Your task to perform on an android device: turn on the 12-hour format for clock Image 0: 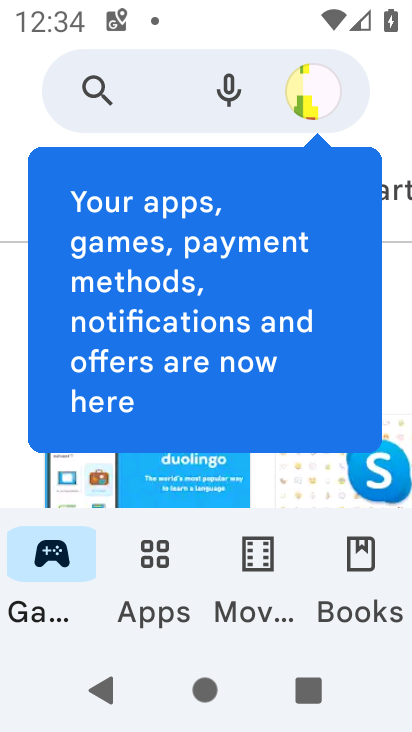
Step 0: press back button
Your task to perform on an android device: turn on the 12-hour format for clock Image 1: 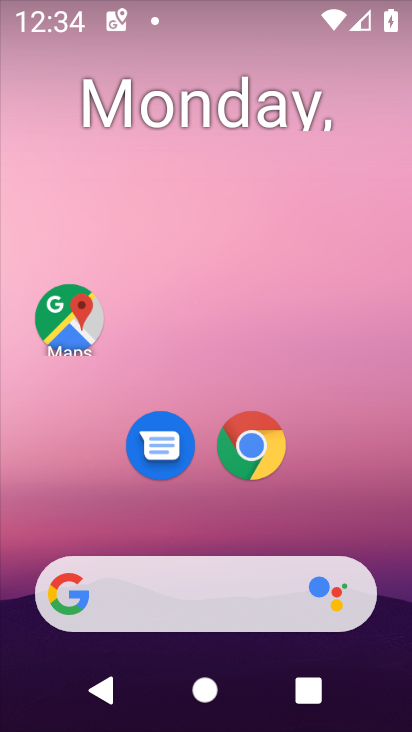
Step 1: drag from (302, 517) to (194, 42)
Your task to perform on an android device: turn on the 12-hour format for clock Image 2: 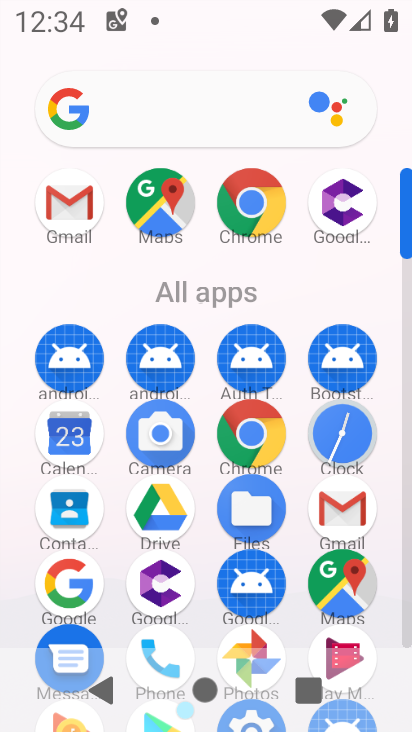
Step 2: click (343, 433)
Your task to perform on an android device: turn on the 12-hour format for clock Image 3: 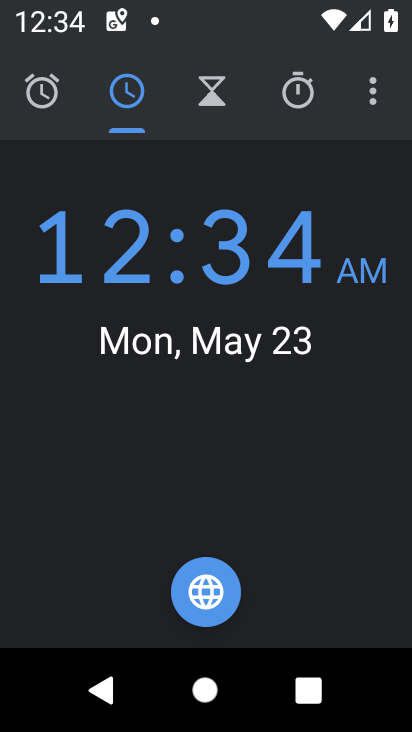
Step 3: click (374, 90)
Your task to perform on an android device: turn on the 12-hour format for clock Image 4: 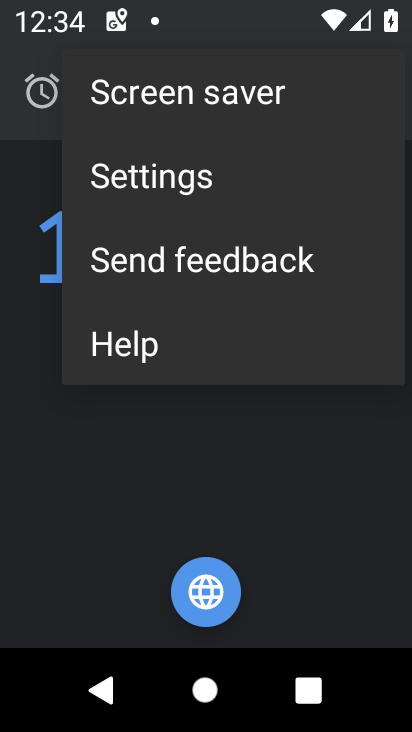
Step 4: click (166, 179)
Your task to perform on an android device: turn on the 12-hour format for clock Image 5: 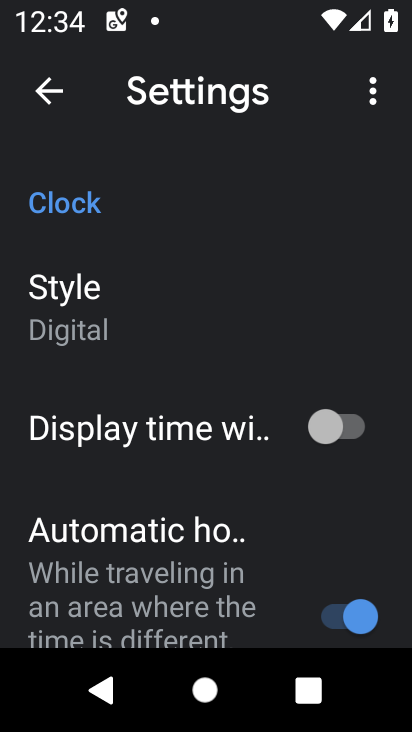
Step 5: drag from (127, 477) to (165, 351)
Your task to perform on an android device: turn on the 12-hour format for clock Image 6: 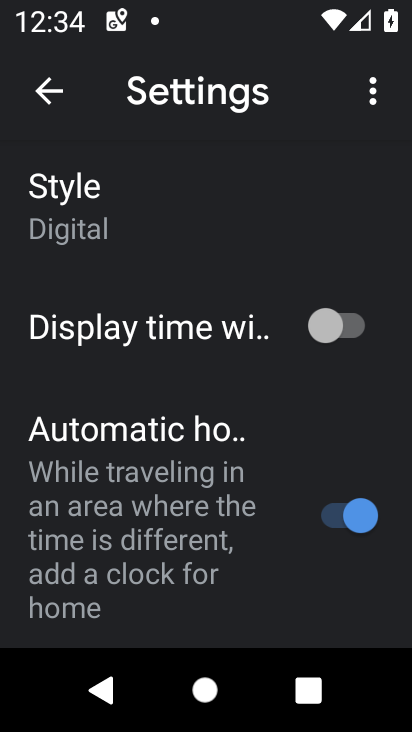
Step 6: drag from (128, 511) to (213, 362)
Your task to perform on an android device: turn on the 12-hour format for clock Image 7: 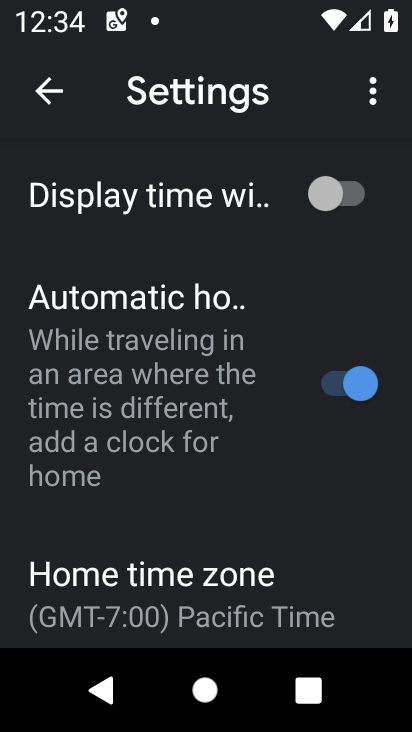
Step 7: drag from (171, 528) to (234, 383)
Your task to perform on an android device: turn on the 12-hour format for clock Image 8: 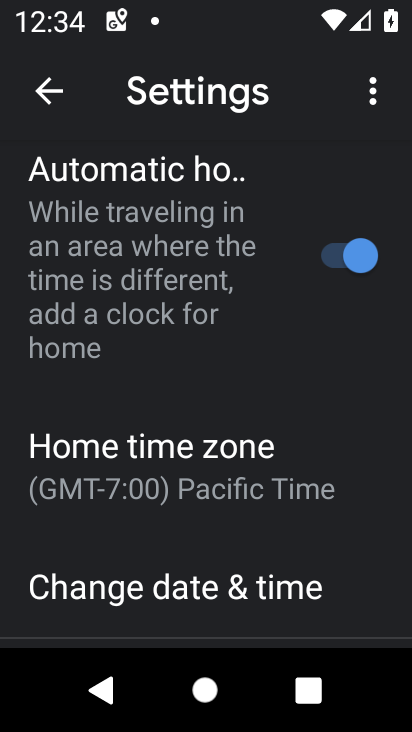
Step 8: drag from (175, 534) to (231, 387)
Your task to perform on an android device: turn on the 12-hour format for clock Image 9: 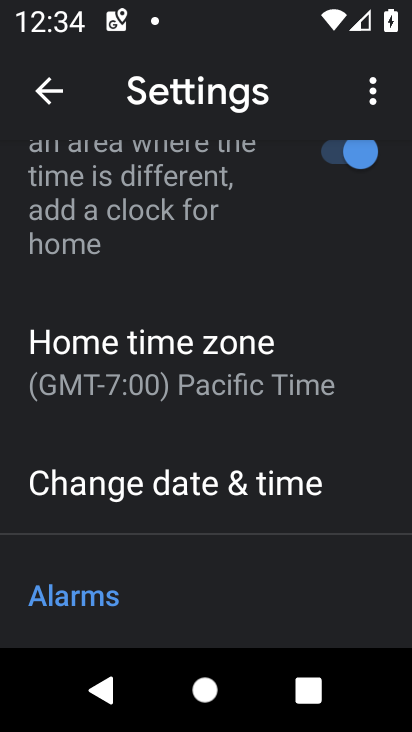
Step 9: click (193, 485)
Your task to perform on an android device: turn on the 12-hour format for clock Image 10: 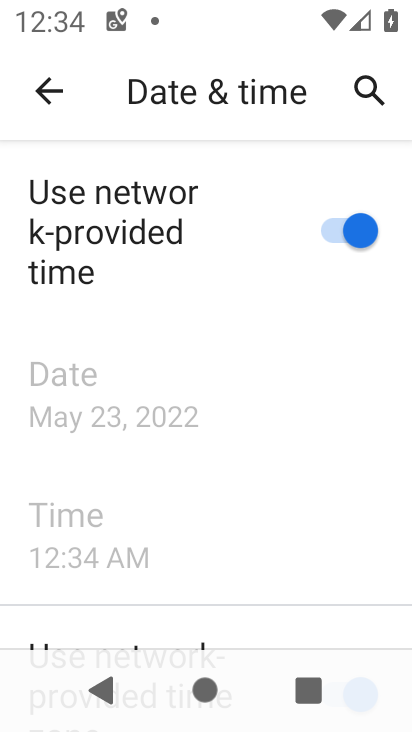
Step 10: task complete